Your task to perform on an android device: Open Maps and search for coffee Image 0: 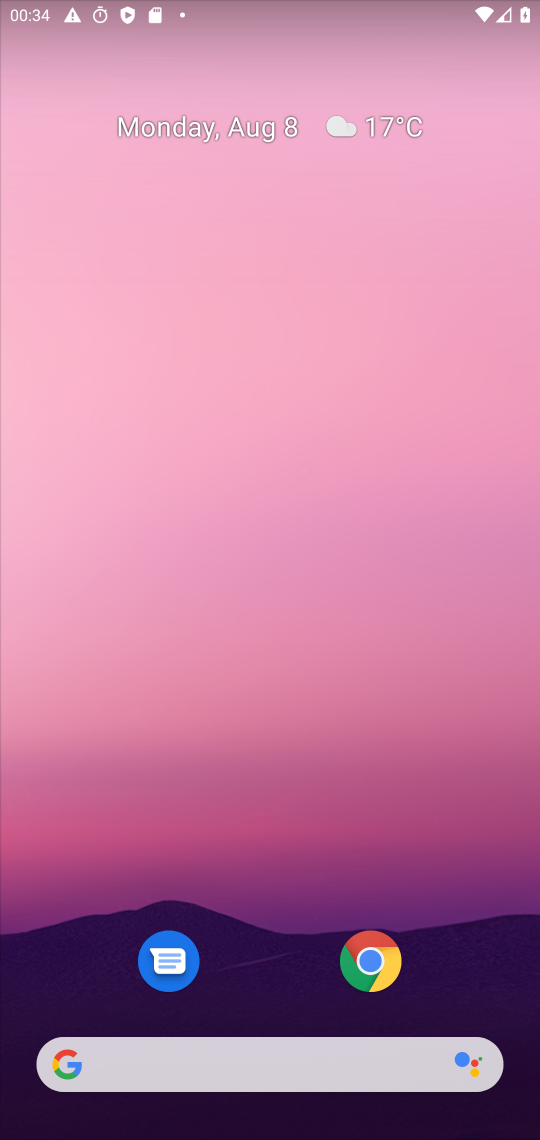
Step 0: drag from (338, 1070) to (276, 179)
Your task to perform on an android device: Open Maps and search for coffee Image 1: 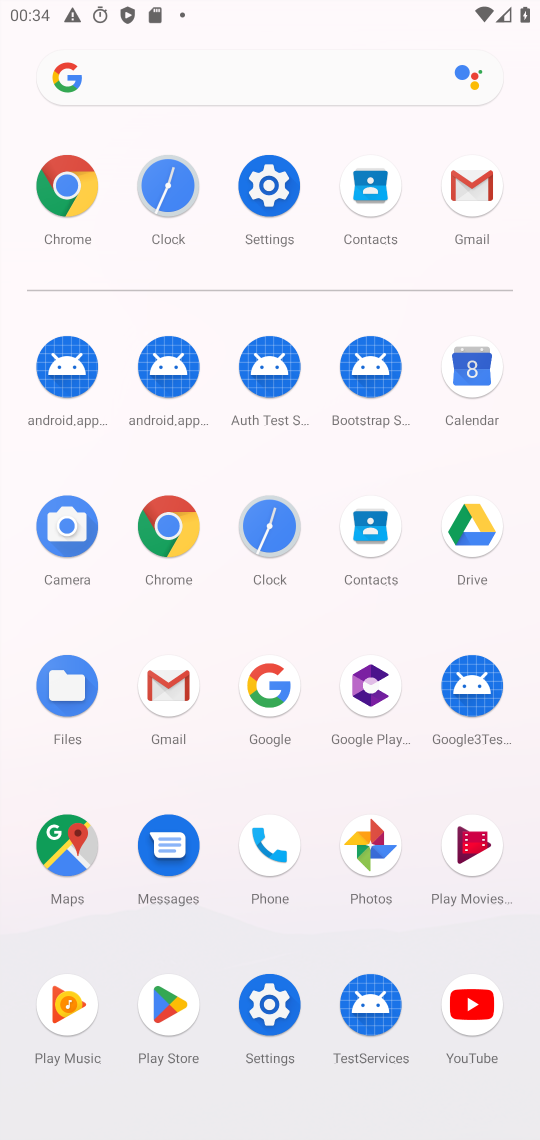
Step 1: click (65, 850)
Your task to perform on an android device: Open Maps and search for coffee Image 2: 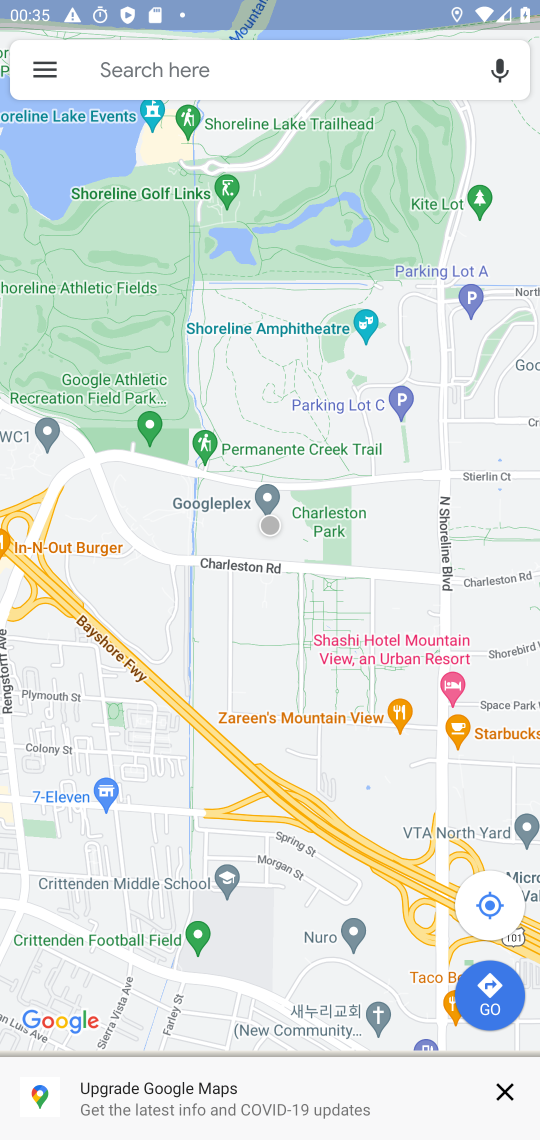
Step 2: click (249, 77)
Your task to perform on an android device: Open Maps and search for coffee Image 3: 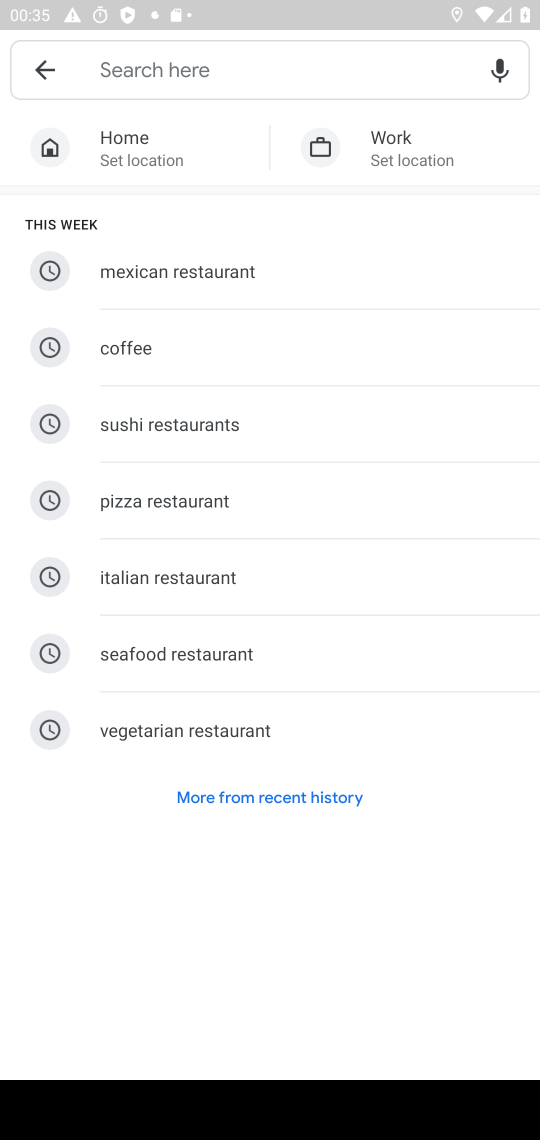
Step 3: type "coffee"
Your task to perform on an android device: Open Maps and search for coffee Image 4: 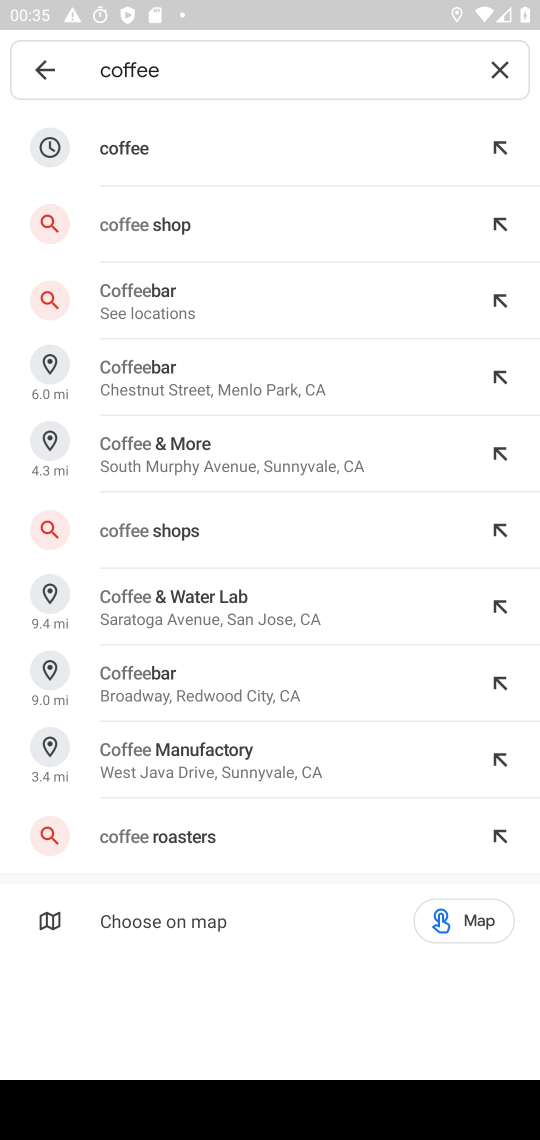
Step 4: click (280, 171)
Your task to perform on an android device: Open Maps and search for coffee Image 5: 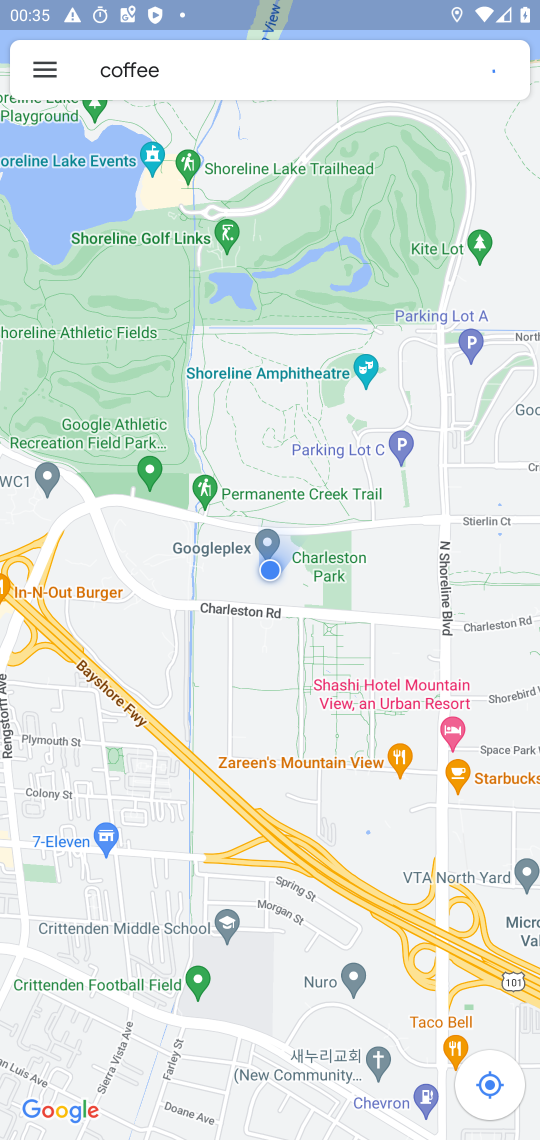
Step 5: task complete